Your task to perform on an android device: toggle pop-ups in chrome Image 0: 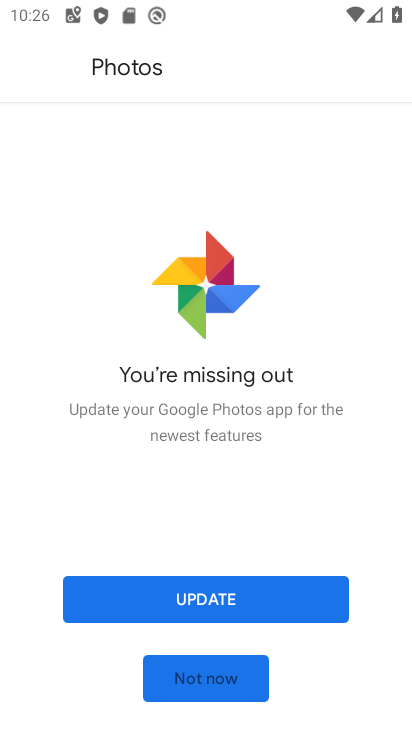
Step 0: press back button
Your task to perform on an android device: toggle pop-ups in chrome Image 1: 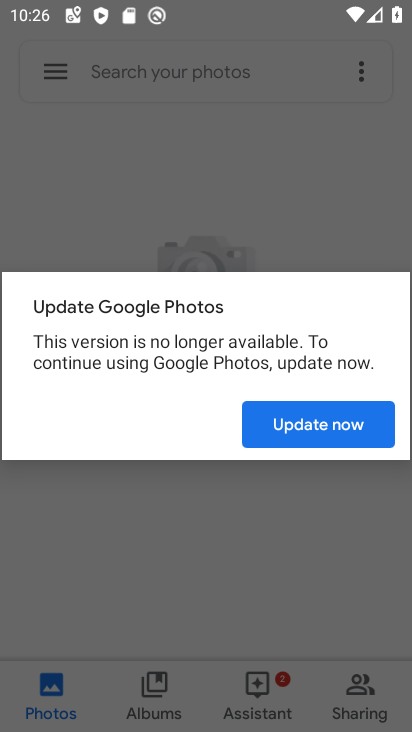
Step 1: press home button
Your task to perform on an android device: toggle pop-ups in chrome Image 2: 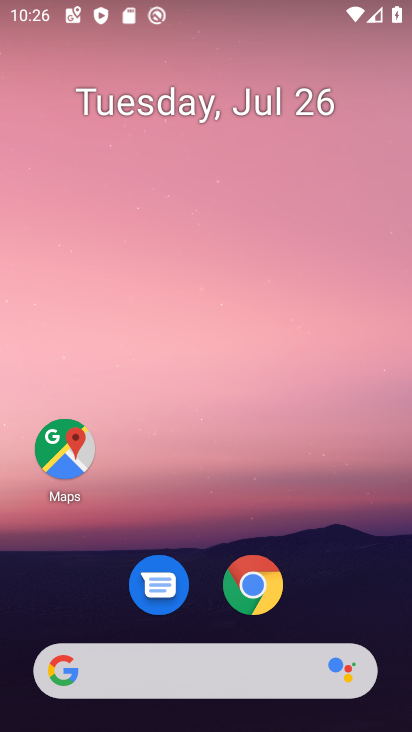
Step 2: click (250, 575)
Your task to perform on an android device: toggle pop-ups in chrome Image 3: 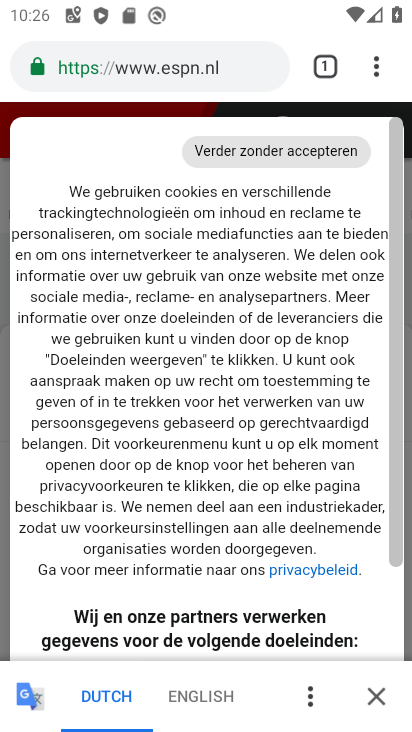
Step 3: click (375, 72)
Your task to perform on an android device: toggle pop-ups in chrome Image 4: 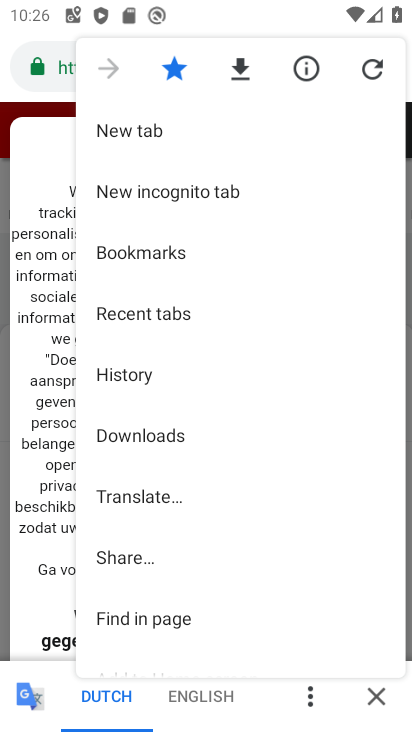
Step 4: drag from (283, 543) to (289, 257)
Your task to perform on an android device: toggle pop-ups in chrome Image 5: 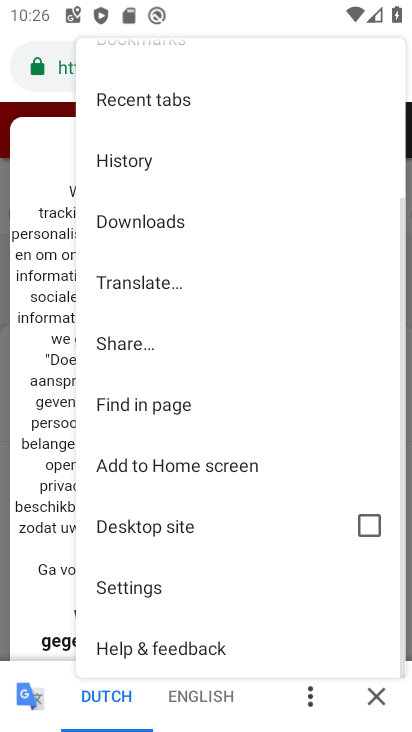
Step 5: click (140, 580)
Your task to perform on an android device: toggle pop-ups in chrome Image 6: 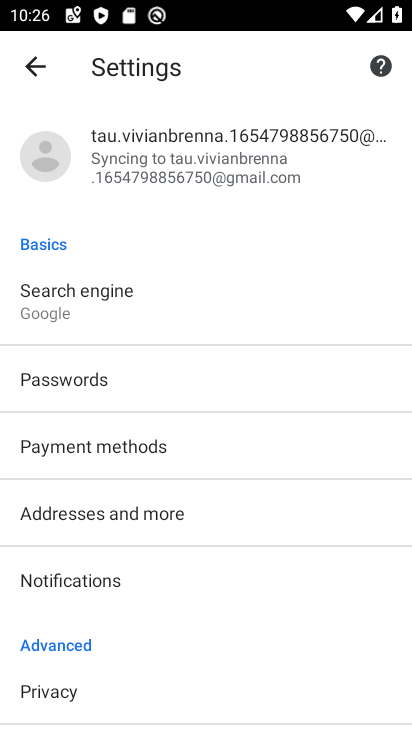
Step 6: drag from (213, 505) to (191, 317)
Your task to perform on an android device: toggle pop-ups in chrome Image 7: 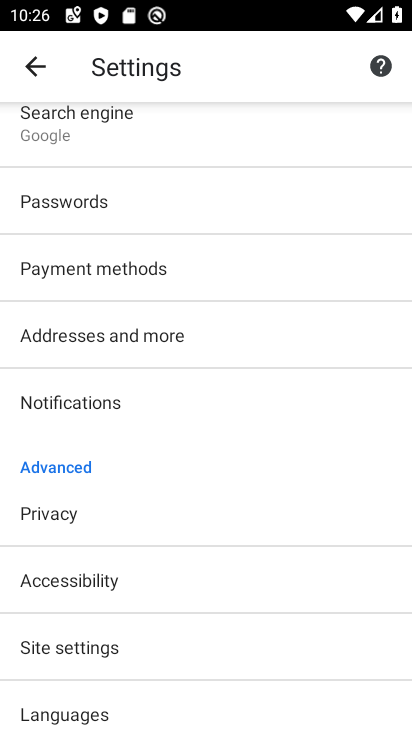
Step 7: click (46, 650)
Your task to perform on an android device: toggle pop-ups in chrome Image 8: 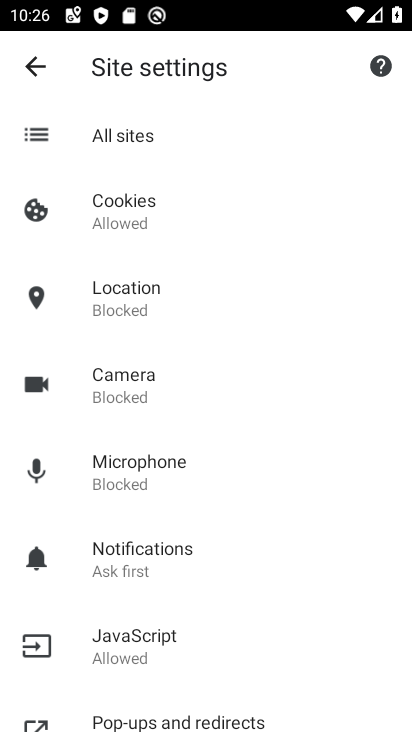
Step 8: click (219, 720)
Your task to perform on an android device: toggle pop-ups in chrome Image 9: 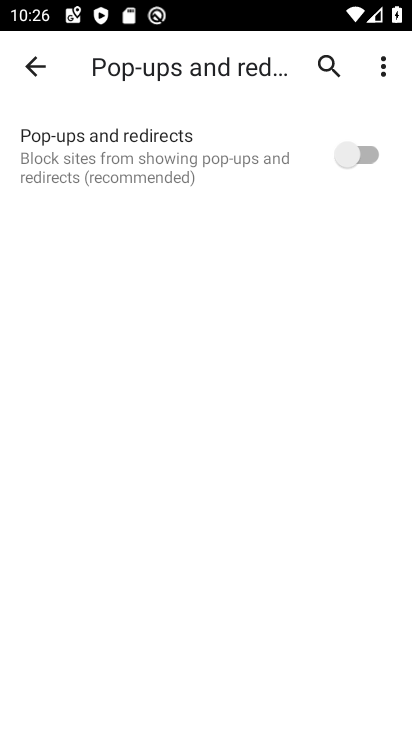
Step 9: click (362, 154)
Your task to perform on an android device: toggle pop-ups in chrome Image 10: 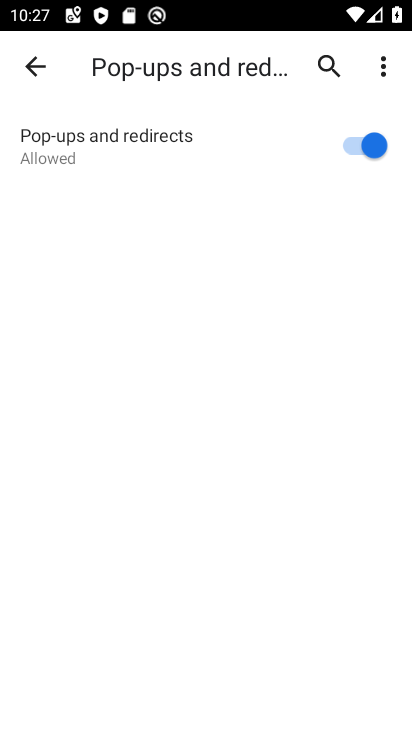
Step 10: task complete